Your task to perform on an android device: Search for Italian restaurants on Maps Image 0: 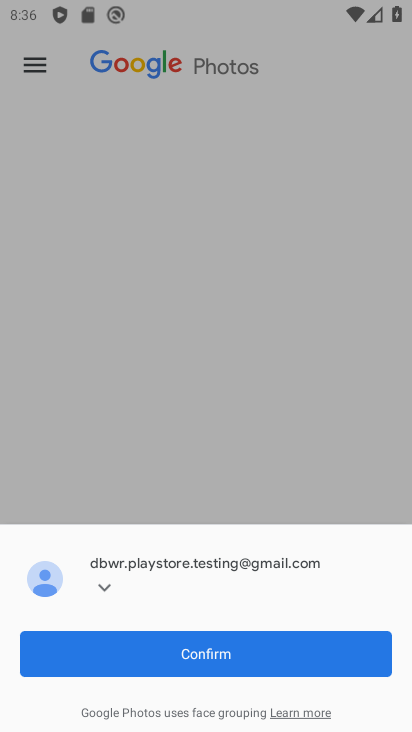
Step 0: press home button
Your task to perform on an android device: Search for Italian restaurants on Maps Image 1: 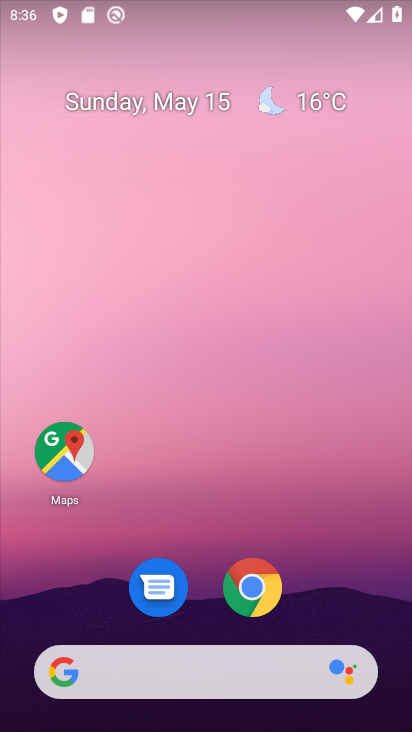
Step 1: click (315, 603)
Your task to perform on an android device: Search for Italian restaurants on Maps Image 2: 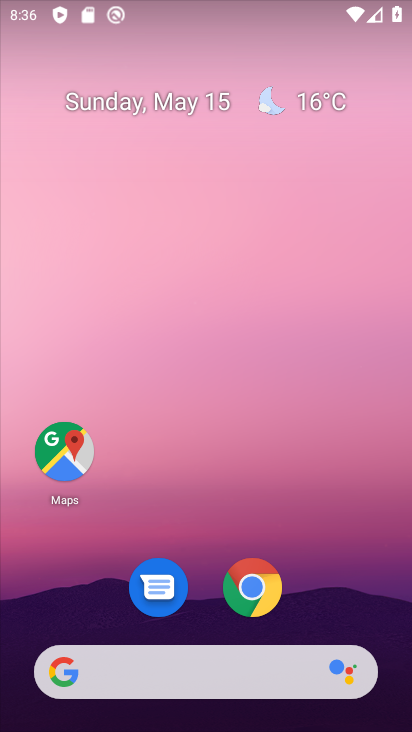
Step 2: click (67, 445)
Your task to perform on an android device: Search for Italian restaurants on Maps Image 3: 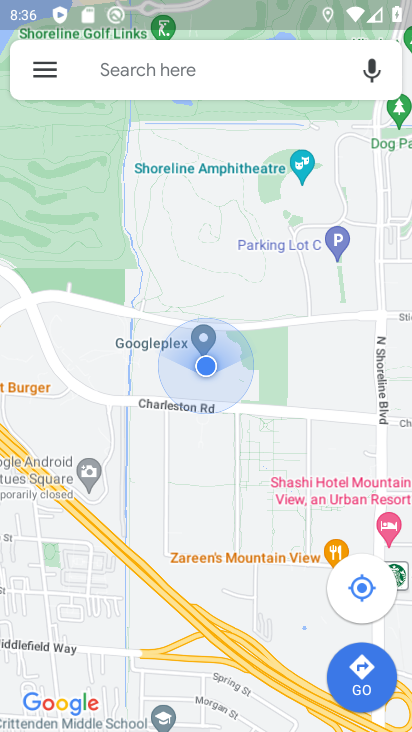
Step 3: click (246, 79)
Your task to perform on an android device: Search for Italian restaurants on Maps Image 4: 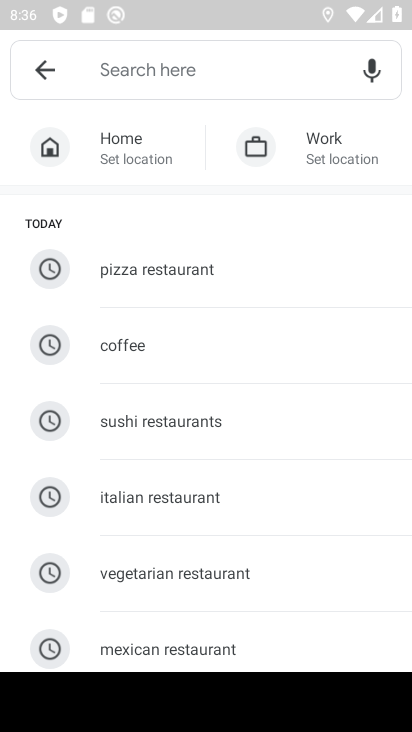
Step 4: type "Italian restaurants"
Your task to perform on an android device: Search for Italian restaurants on Maps Image 5: 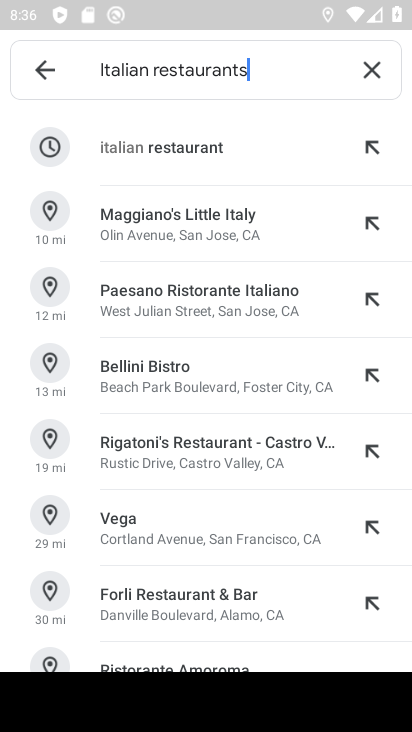
Step 5: press enter
Your task to perform on an android device: Search for Italian restaurants on Maps Image 6: 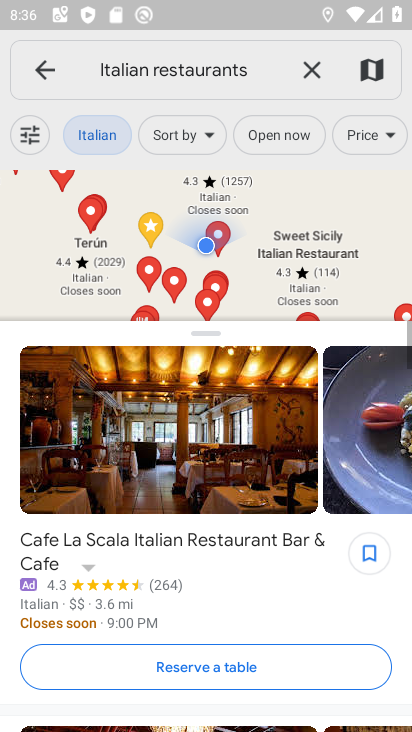
Step 6: task complete